Your task to perform on an android device: clear all cookies in the chrome app Image 0: 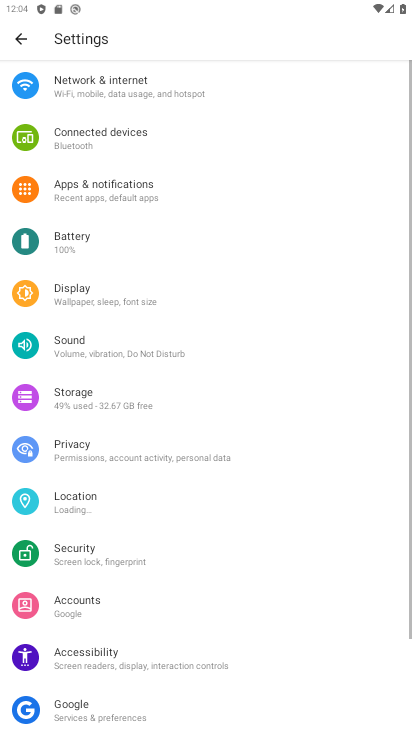
Step 0: press home button
Your task to perform on an android device: clear all cookies in the chrome app Image 1: 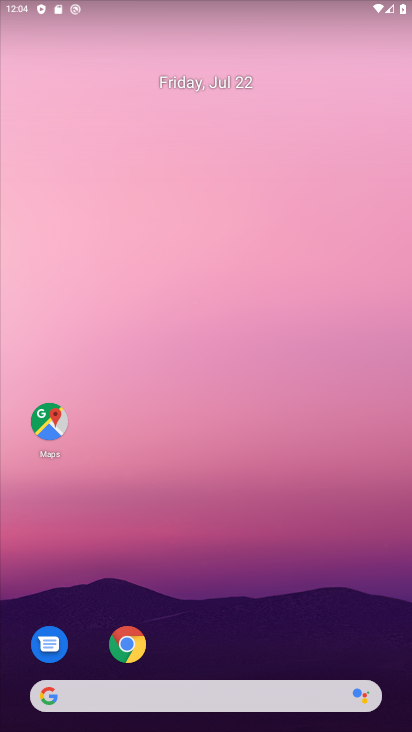
Step 1: drag from (235, 648) to (291, 50)
Your task to perform on an android device: clear all cookies in the chrome app Image 2: 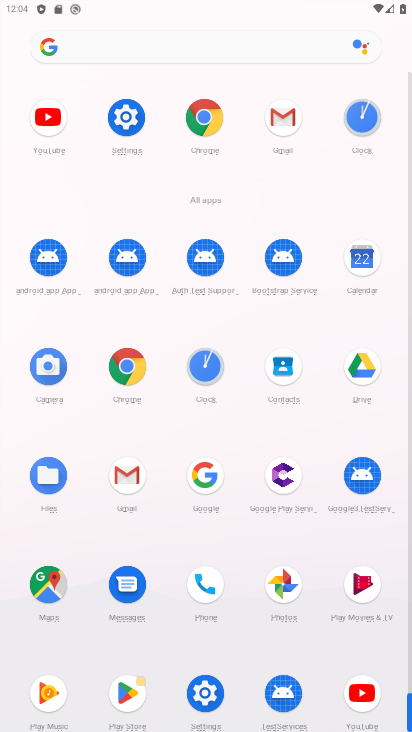
Step 2: click (197, 136)
Your task to perform on an android device: clear all cookies in the chrome app Image 3: 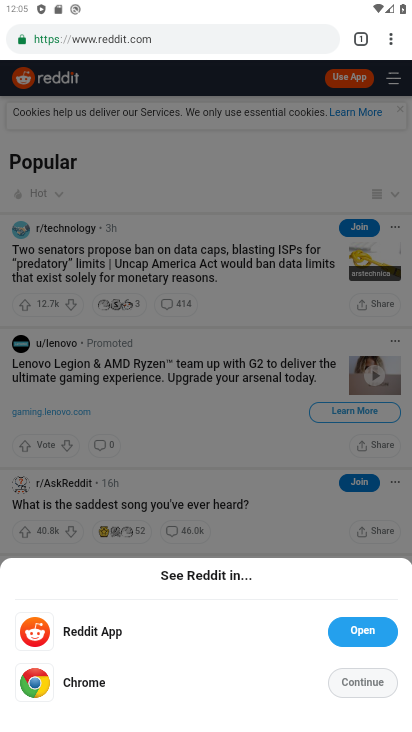
Step 3: click (388, 38)
Your task to perform on an android device: clear all cookies in the chrome app Image 4: 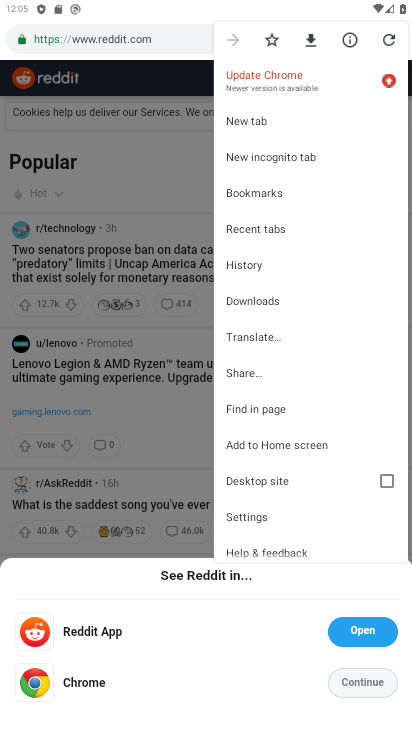
Step 4: click (259, 259)
Your task to perform on an android device: clear all cookies in the chrome app Image 5: 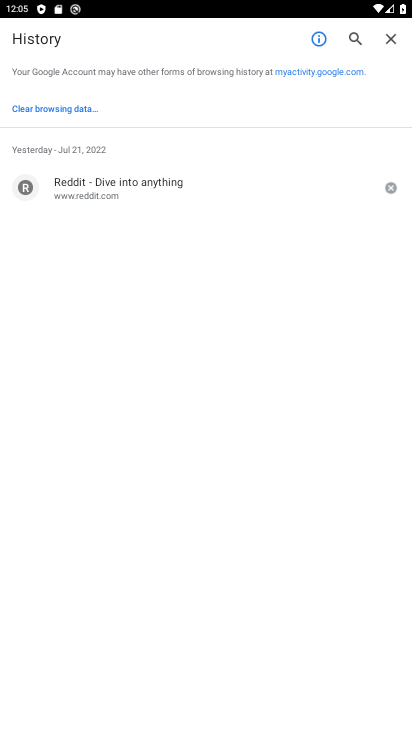
Step 5: click (50, 104)
Your task to perform on an android device: clear all cookies in the chrome app Image 6: 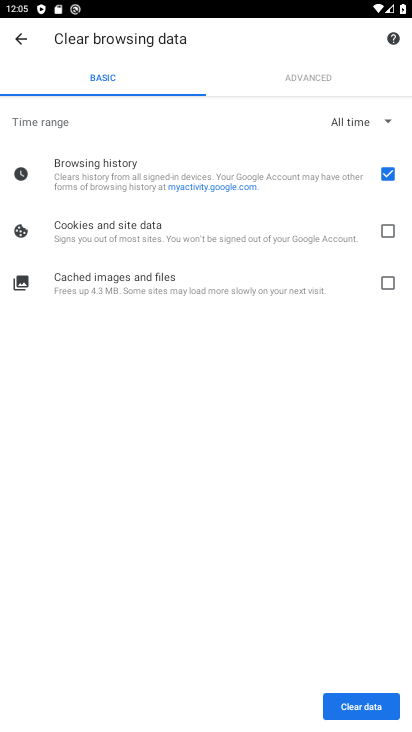
Step 6: click (378, 230)
Your task to perform on an android device: clear all cookies in the chrome app Image 7: 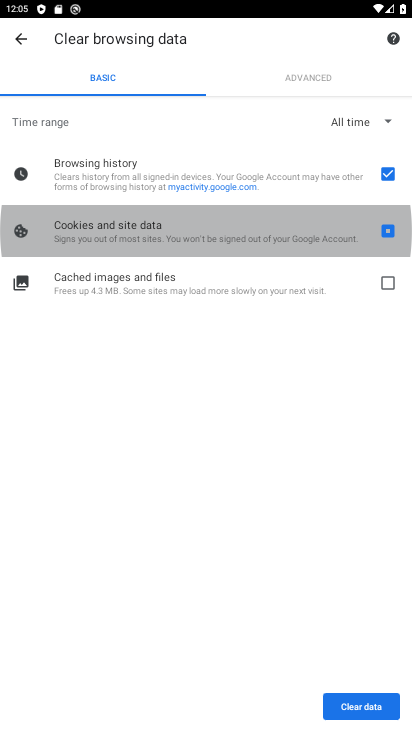
Step 7: click (385, 176)
Your task to perform on an android device: clear all cookies in the chrome app Image 8: 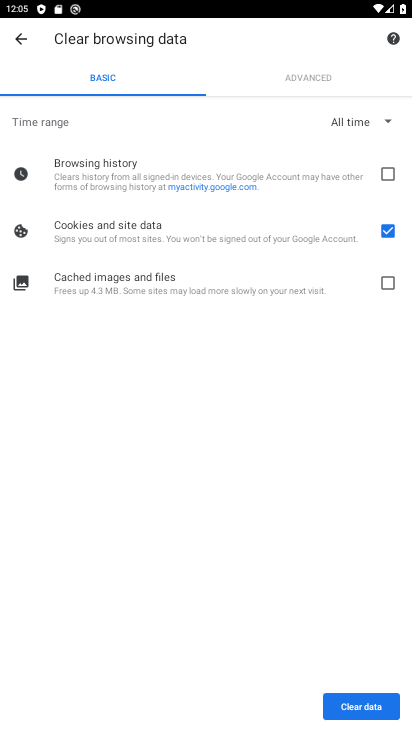
Step 8: click (366, 696)
Your task to perform on an android device: clear all cookies in the chrome app Image 9: 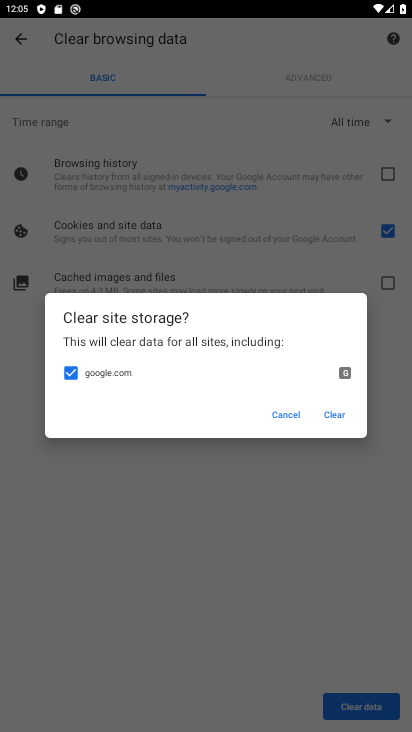
Step 9: click (337, 422)
Your task to perform on an android device: clear all cookies in the chrome app Image 10: 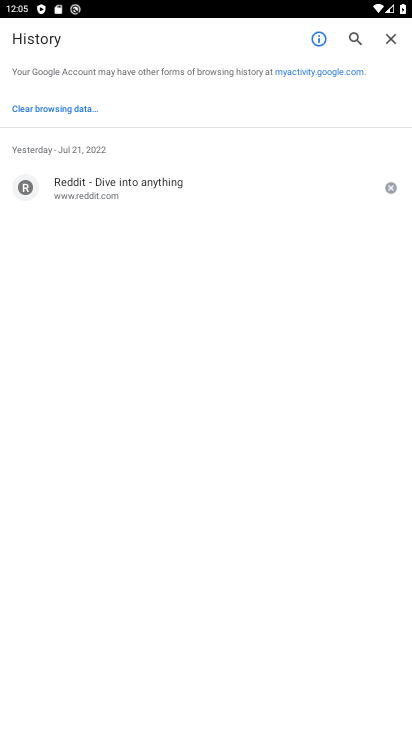
Step 10: task complete